Your task to perform on an android device: Go to Wikipedia Image 0: 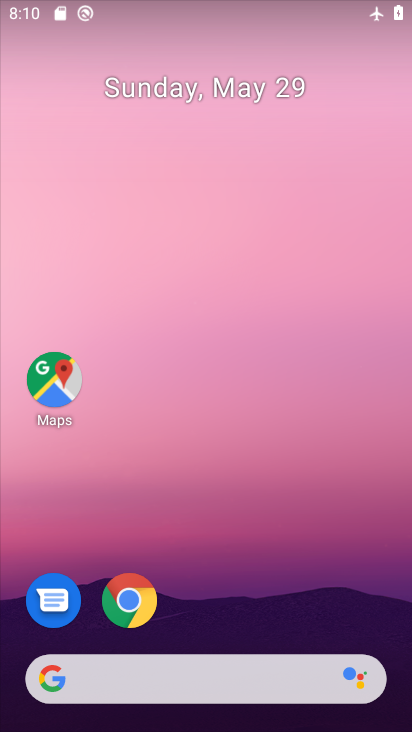
Step 0: click (140, 614)
Your task to perform on an android device: Go to Wikipedia Image 1: 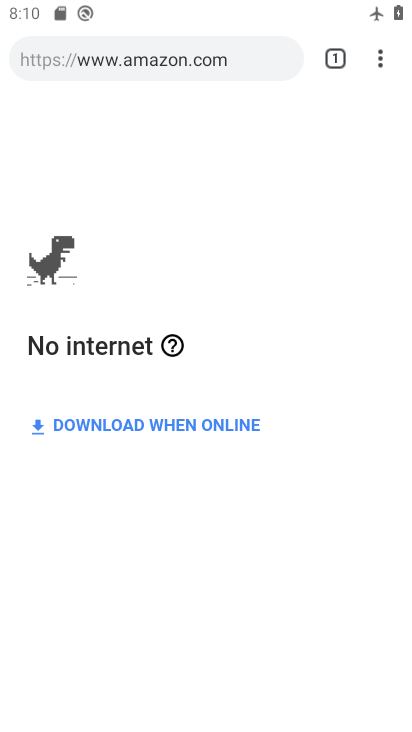
Step 1: task complete